Your task to perform on an android device: What is the news today? Image 0: 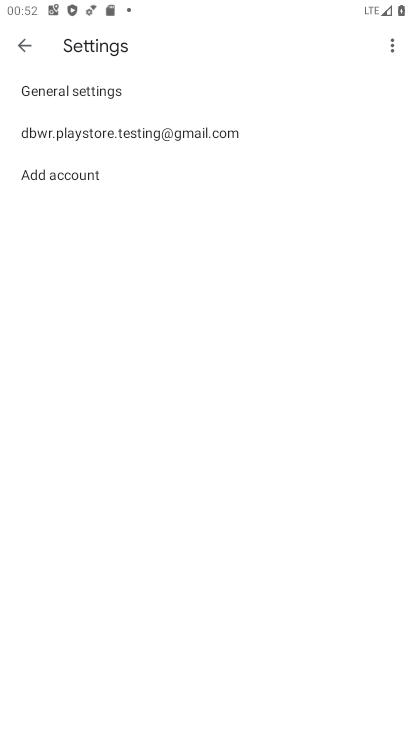
Step 0: press home button
Your task to perform on an android device: What is the news today? Image 1: 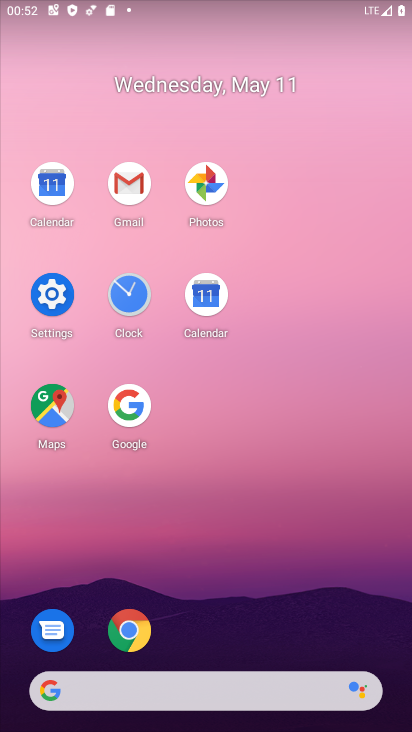
Step 1: click (121, 413)
Your task to perform on an android device: What is the news today? Image 2: 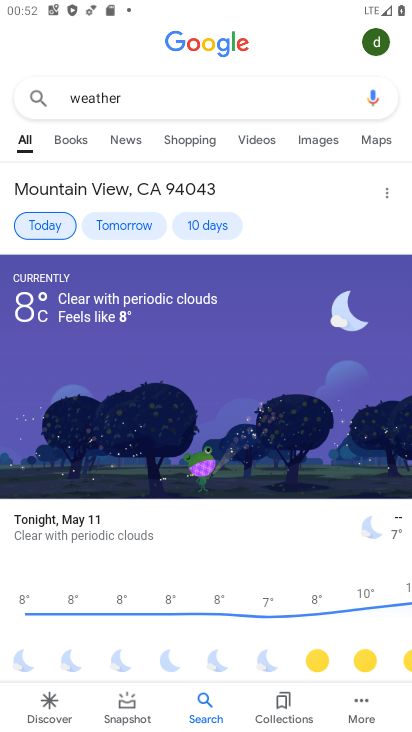
Step 2: click (183, 97)
Your task to perform on an android device: What is the news today? Image 3: 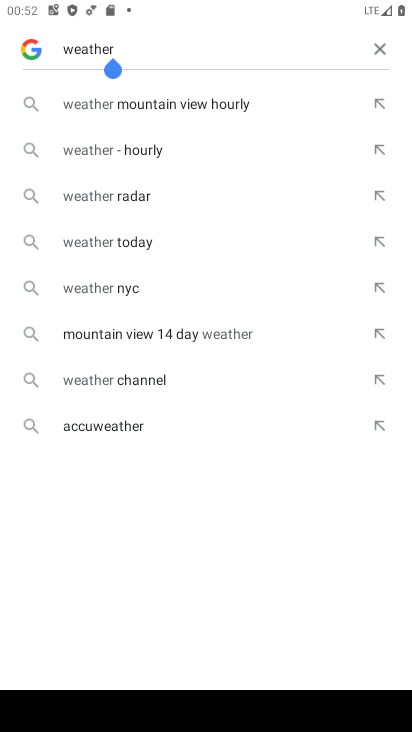
Step 3: click (382, 55)
Your task to perform on an android device: What is the news today? Image 4: 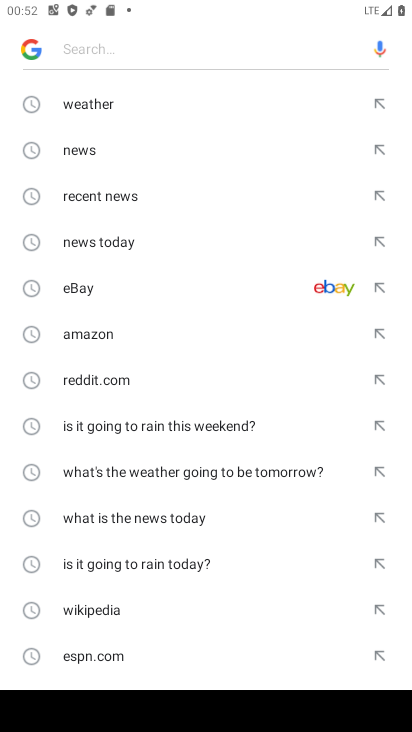
Step 4: click (116, 157)
Your task to perform on an android device: What is the news today? Image 5: 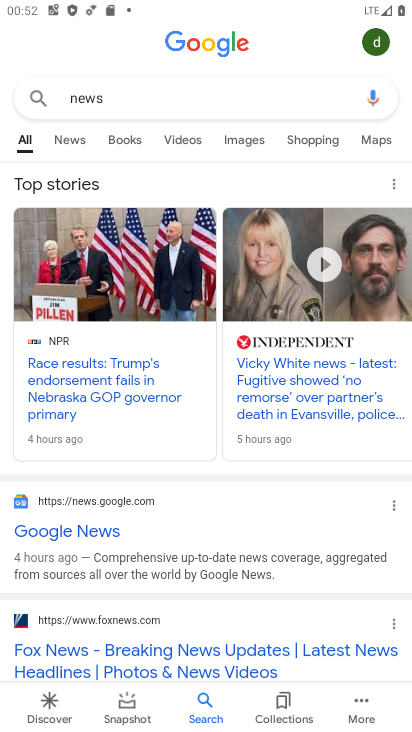
Step 5: task complete